Your task to perform on an android device: change the clock style Image 0: 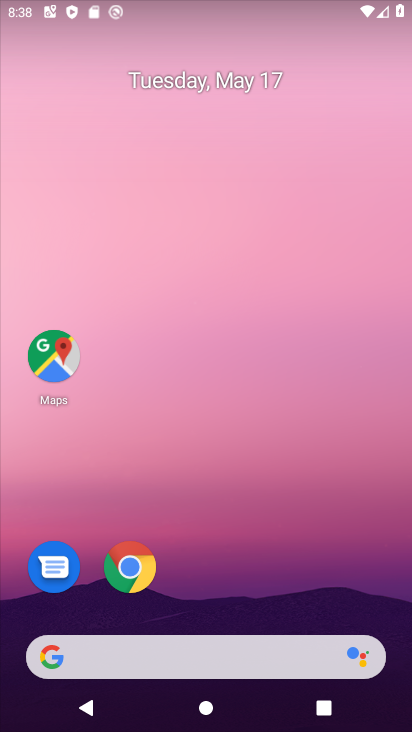
Step 0: click (187, 84)
Your task to perform on an android device: change the clock style Image 1: 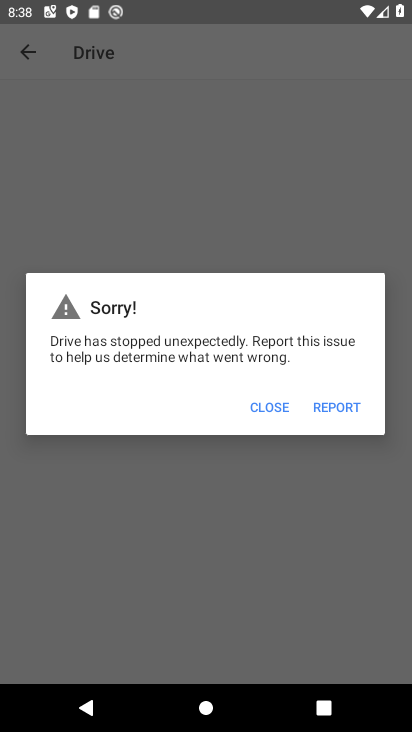
Step 1: press home button
Your task to perform on an android device: change the clock style Image 2: 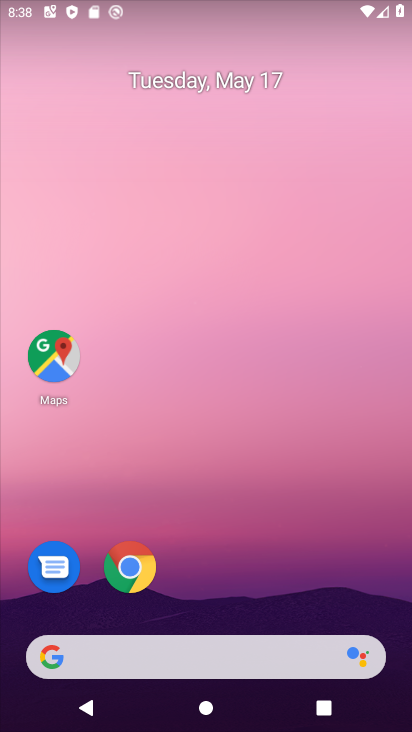
Step 2: click (210, 129)
Your task to perform on an android device: change the clock style Image 3: 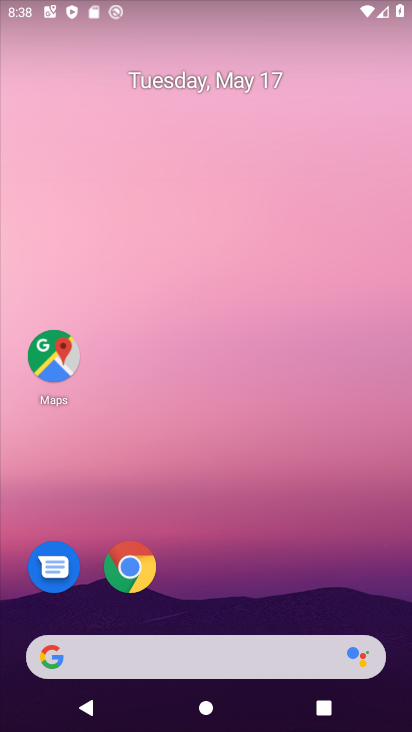
Step 3: drag from (239, 486) to (154, 69)
Your task to perform on an android device: change the clock style Image 4: 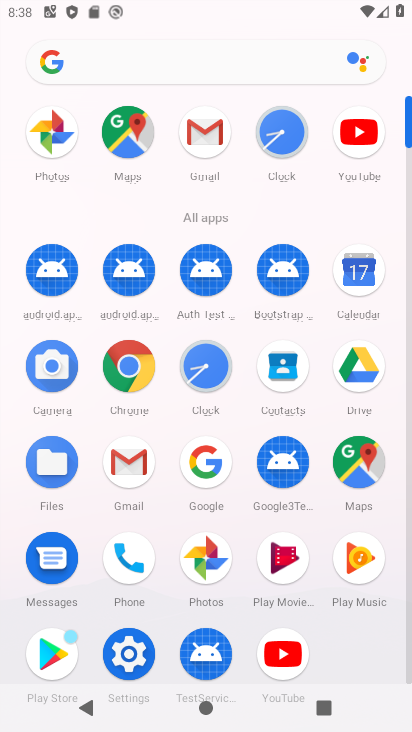
Step 4: click (280, 135)
Your task to perform on an android device: change the clock style Image 5: 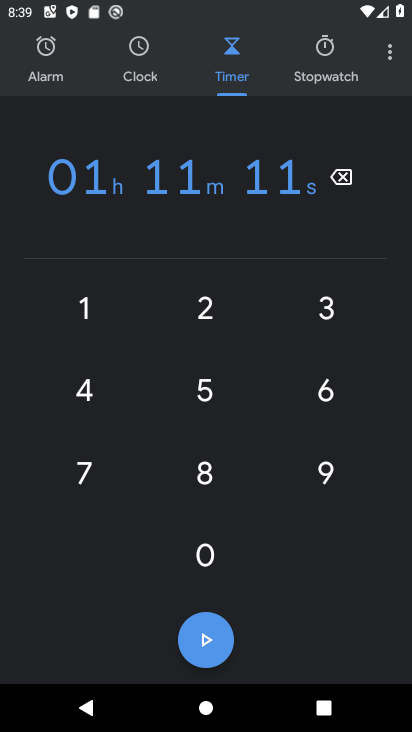
Step 5: click (389, 53)
Your task to perform on an android device: change the clock style Image 6: 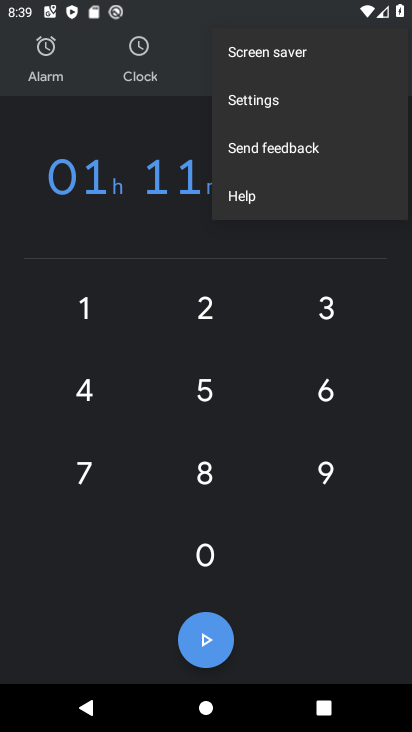
Step 6: click (262, 93)
Your task to perform on an android device: change the clock style Image 7: 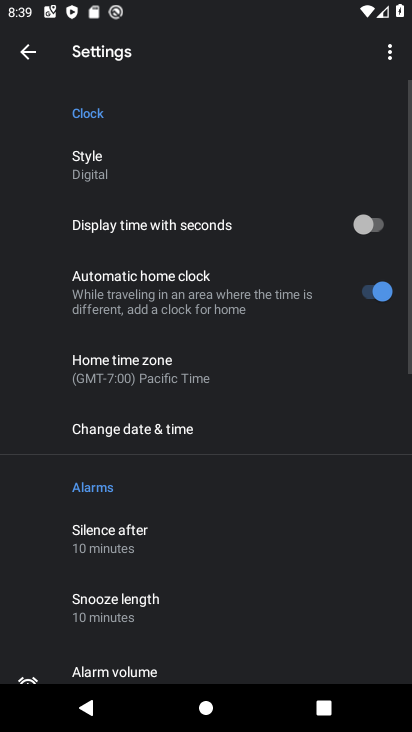
Step 7: click (86, 160)
Your task to perform on an android device: change the clock style Image 8: 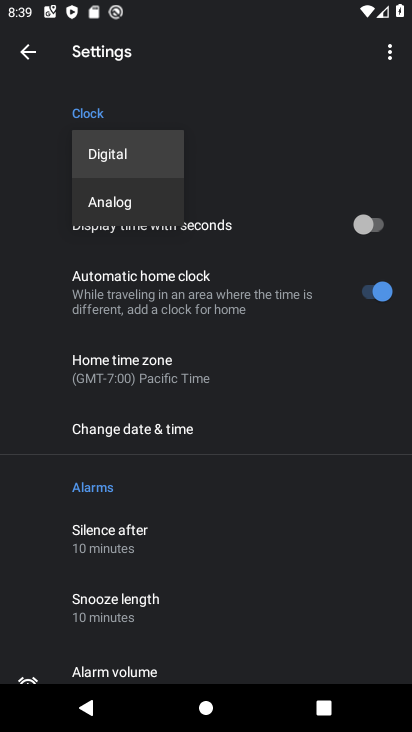
Step 8: click (107, 209)
Your task to perform on an android device: change the clock style Image 9: 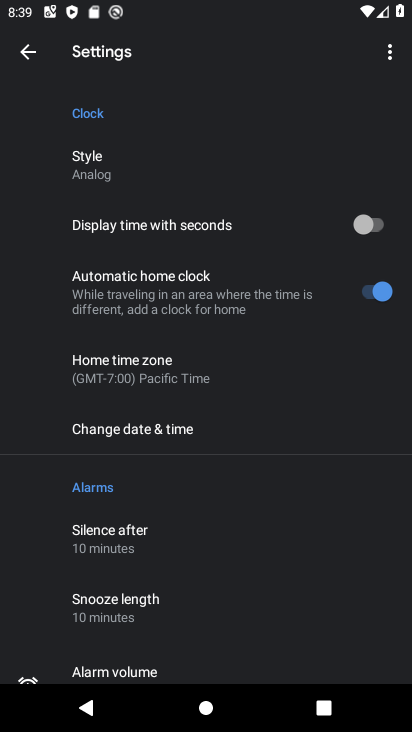
Step 9: task complete